Your task to perform on an android device: Go to privacy settings Image 0: 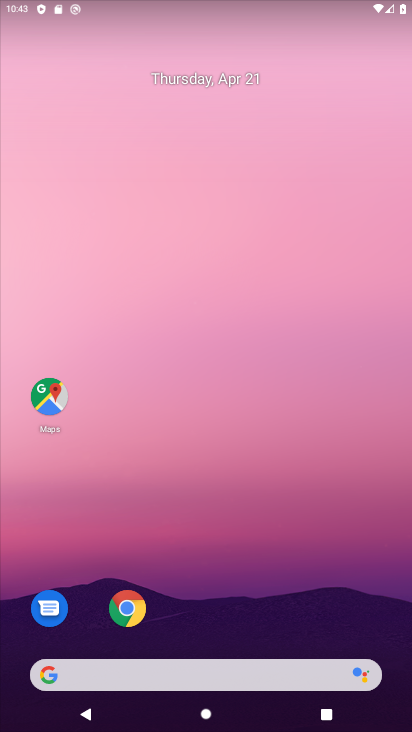
Step 0: click (134, 608)
Your task to perform on an android device: Go to privacy settings Image 1: 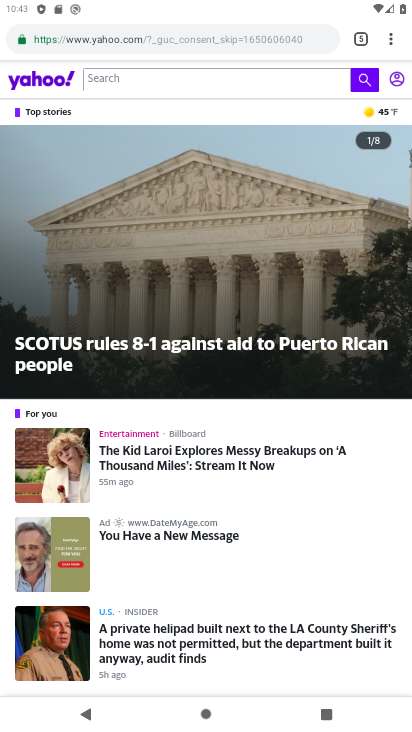
Step 1: drag from (391, 40) to (260, 513)
Your task to perform on an android device: Go to privacy settings Image 2: 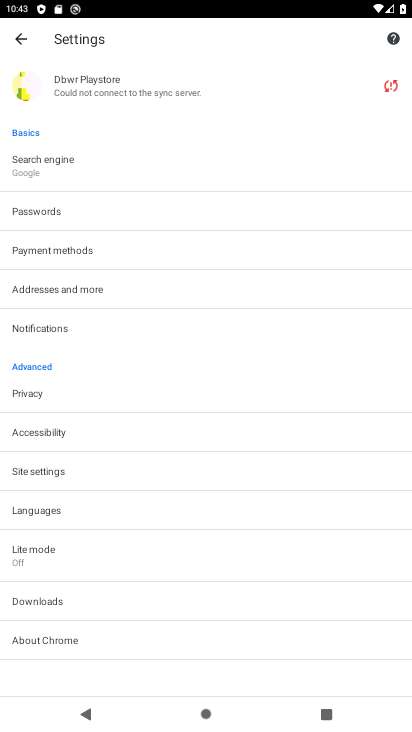
Step 2: click (29, 398)
Your task to perform on an android device: Go to privacy settings Image 3: 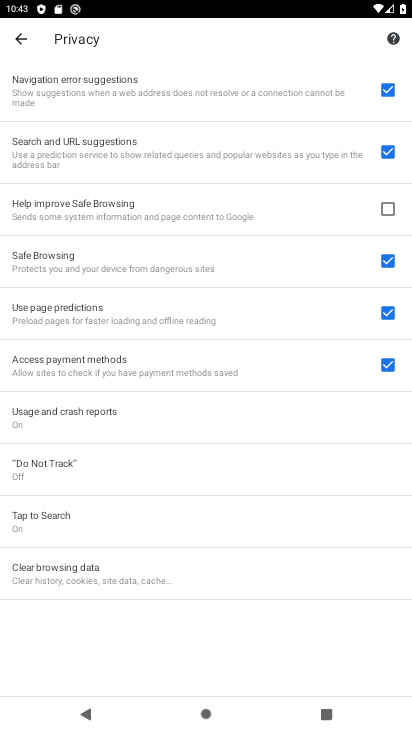
Step 3: task complete